Your task to perform on an android device: Open settings Image 0: 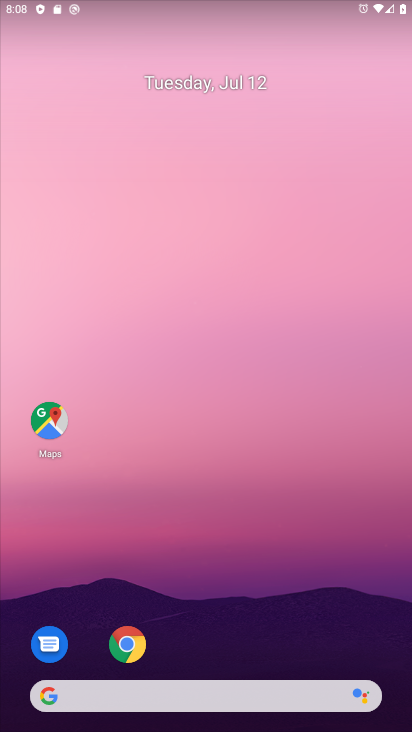
Step 0: drag from (19, 709) to (211, 162)
Your task to perform on an android device: Open settings Image 1: 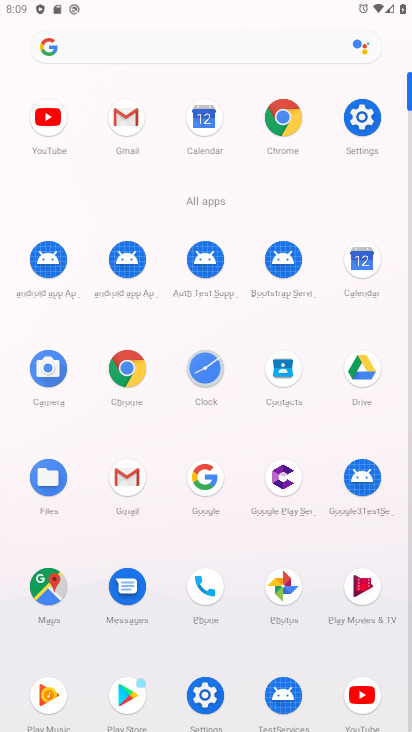
Step 1: click (196, 698)
Your task to perform on an android device: Open settings Image 2: 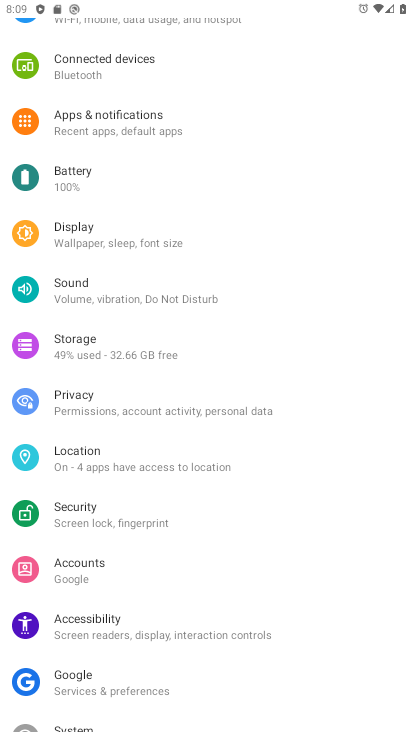
Step 2: task complete